Your task to perform on an android device: change timer sound Image 0: 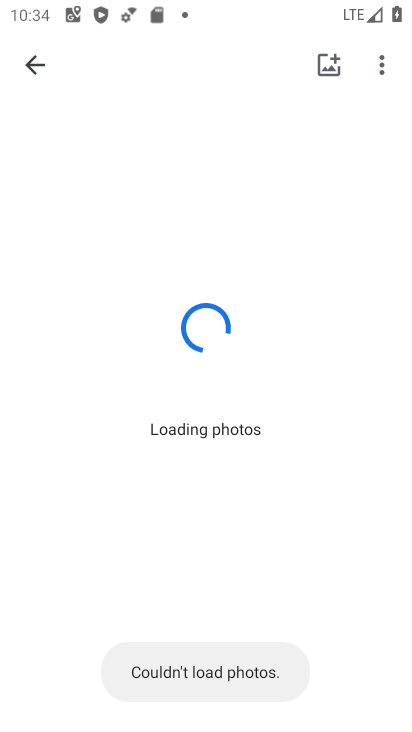
Step 0: press home button
Your task to perform on an android device: change timer sound Image 1: 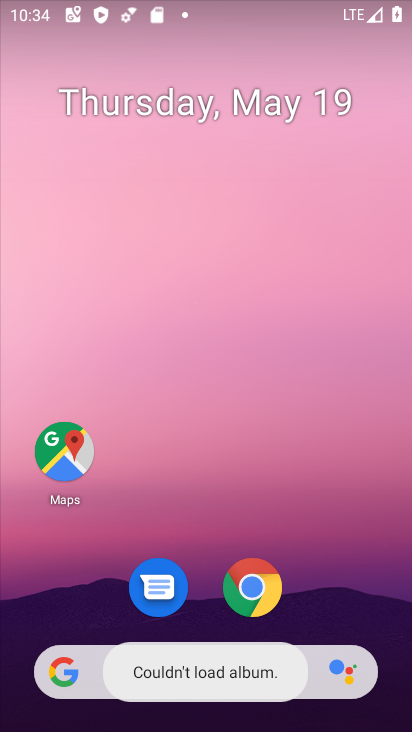
Step 1: drag from (199, 629) to (200, 162)
Your task to perform on an android device: change timer sound Image 2: 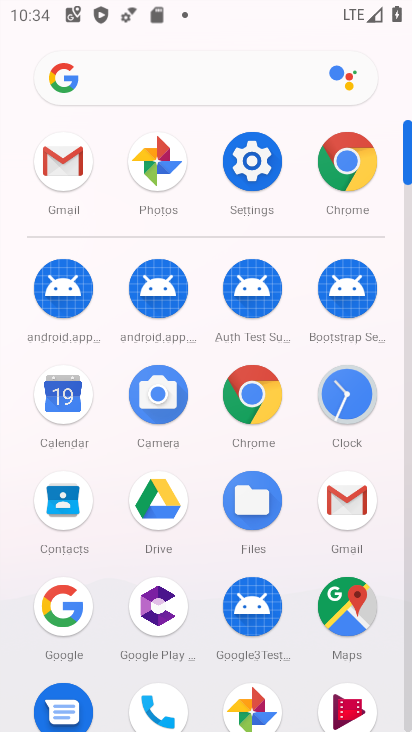
Step 2: click (242, 155)
Your task to perform on an android device: change timer sound Image 3: 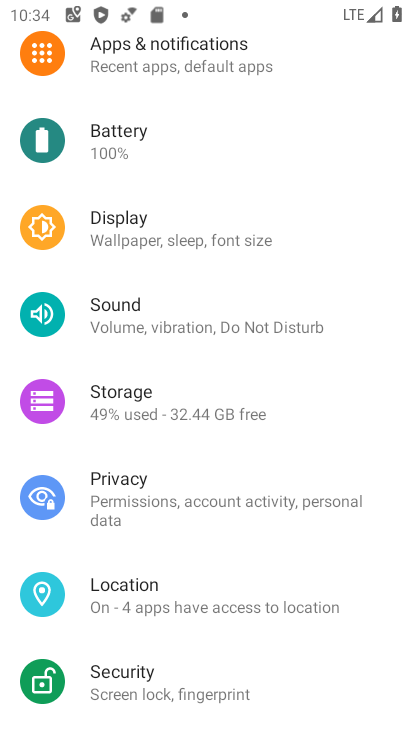
Step 3: click (125, 304)
Your task to perform on an android device: change timer sound Image 4: 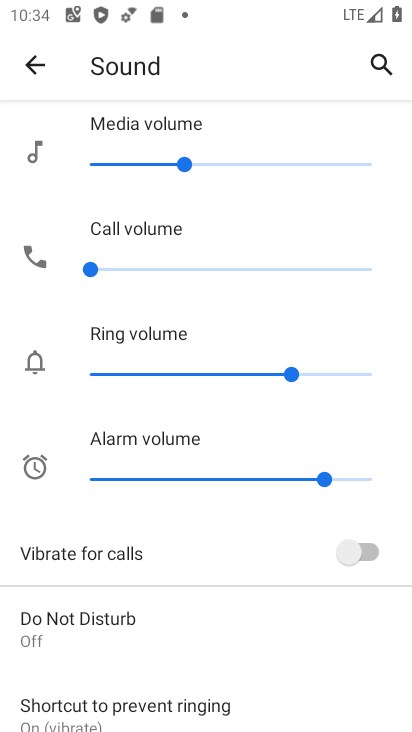
Step 4: task complete